Your task to perform on an android device: Go to notification settings Image 0: 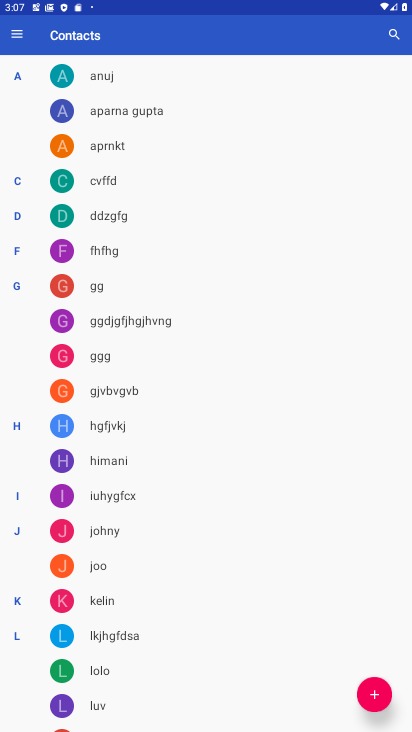
Step 0: press home button
Your task to perform on an android device: Go to notification settings Image 1: 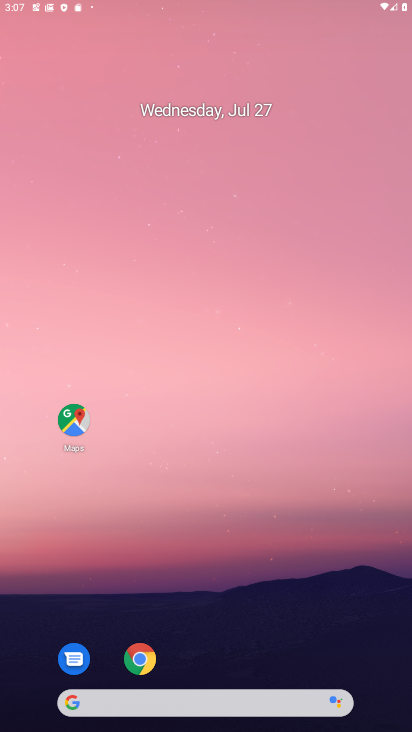
Step 1: drag from (235, 690) to (213, 250)
Your task to perform on an android device: Go to notification settings Image 2: 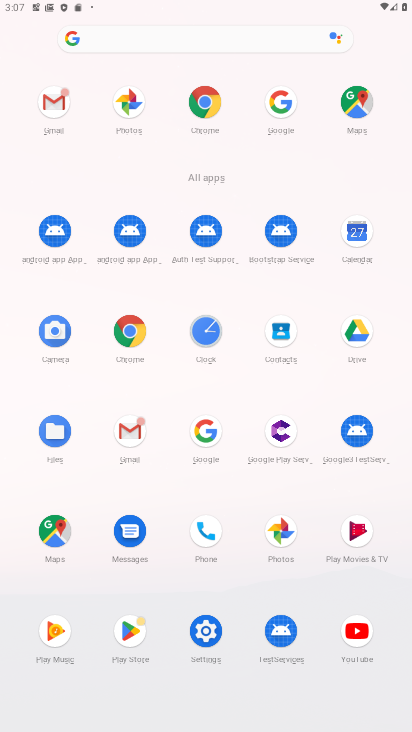
Step 2: click (203, 633)
Your task to perform on an android device: Go to notification settings Image 3: 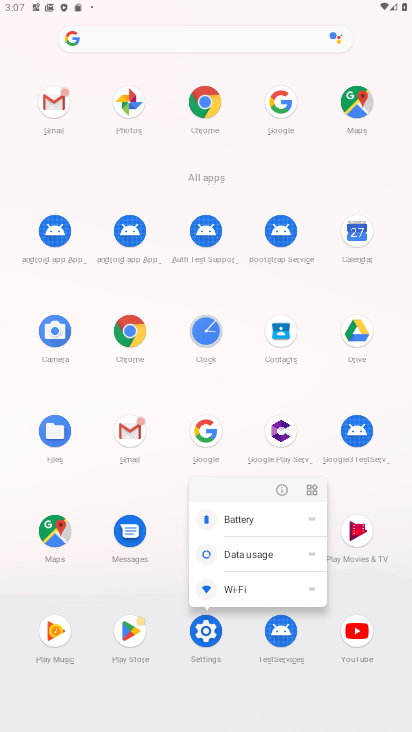
Step 3: click (203, 633)
Your task to perform on an android device: Go to notification settings Image 4: 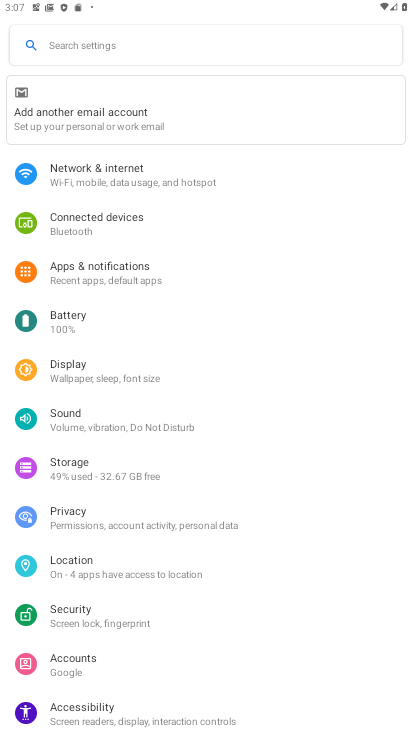
Step 4: click (89, 267)
Your task to perform on an android device: Go to notification settings Image 5: 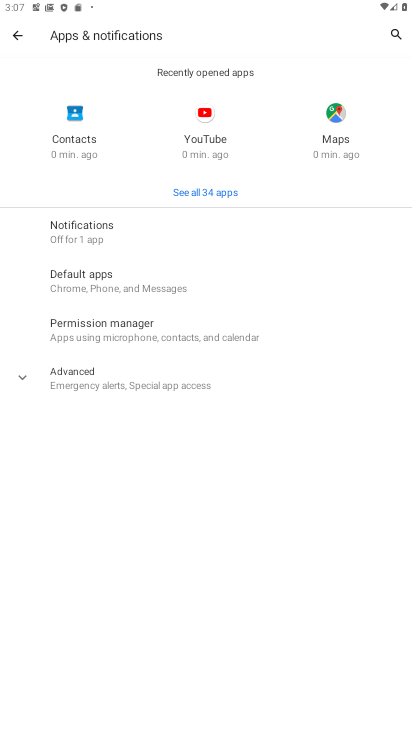
Step 5: click (91, 364)
Your task to perform on an android device: Go to notification settings Image 6: 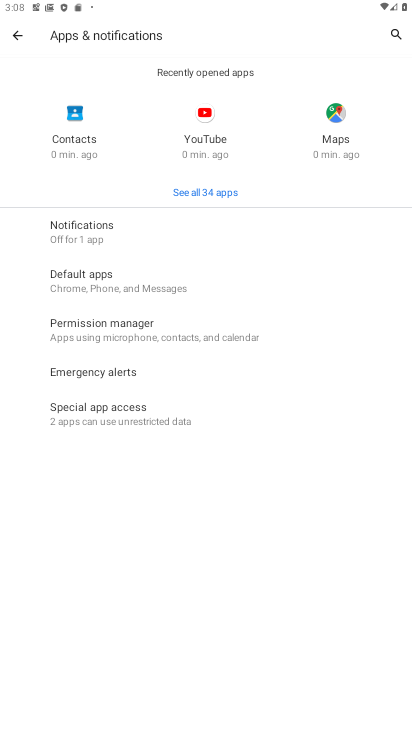
Step 6: task complete